Your task to perform on an android device: change the clock display to digital Image 0: 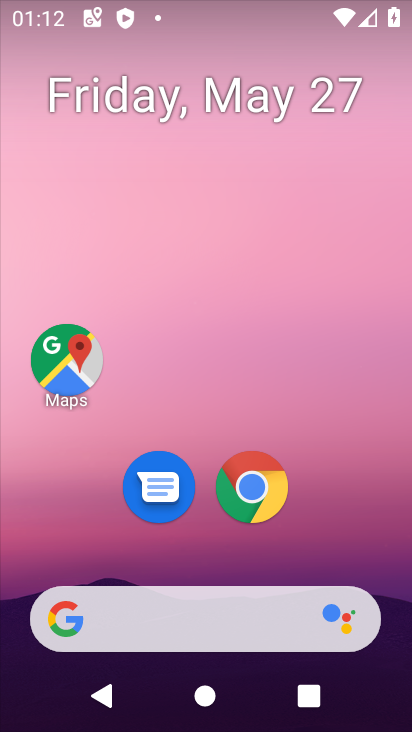
Step 0: drag from (147, 727) to (217, 53)
Your task to perform on an android device: change the clock display to digital Image 1: 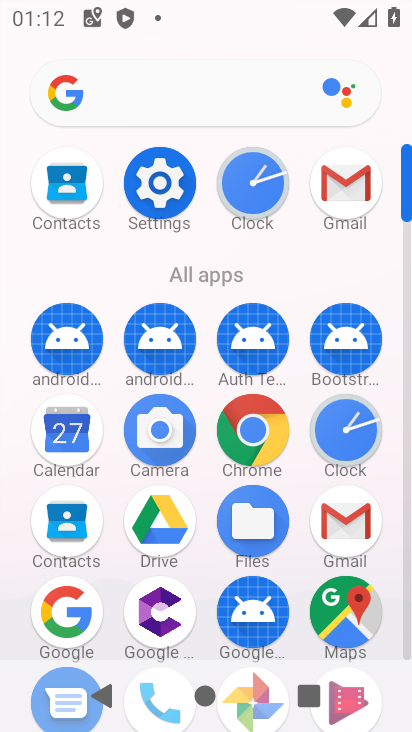
Step 1: click (249, 203)
Your task to perform on an android device: change the clock display to digital Image 2: 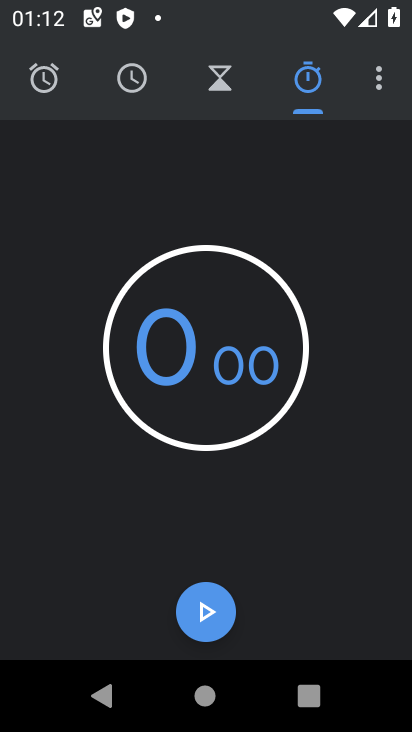
Step 2: click (376, 81)
Your task to perform on an android device: change the clock display to digital Image 3: 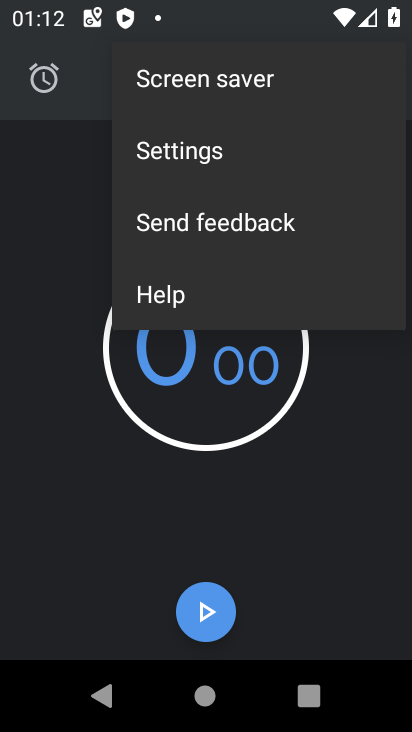
Step 3: click (197, 146)
Your task to perform on an android device: change the clock display to digital Image 4: 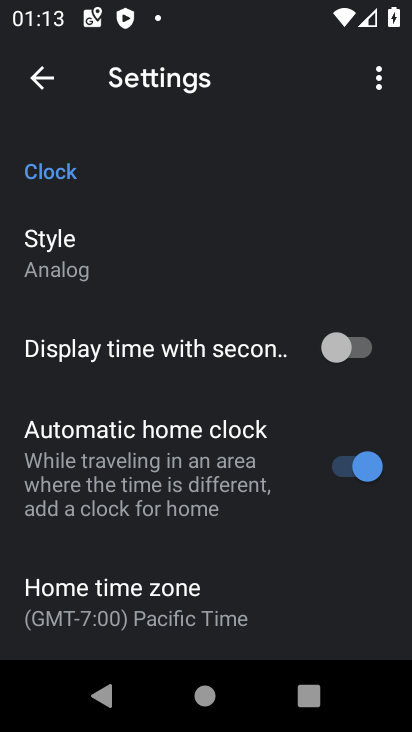
Step 4: click (81, 271)
Your task to perform on an android device: change the clock display to digital Image 5: 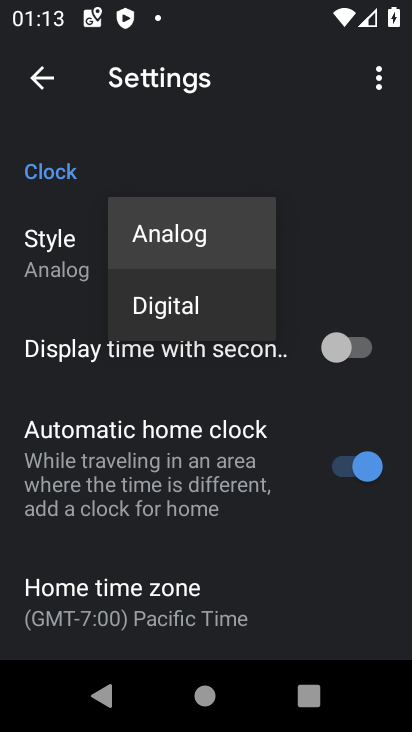
Step 5: click (209, 310)
Your task to perform on an android device: change the clock display to digital Image 6: 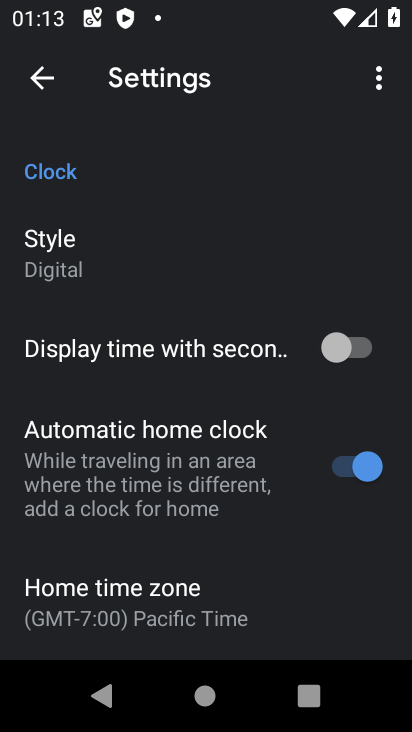
Step 6: task complete